Your task to perform on an android device: Do I have any events this weekend? Image 0: 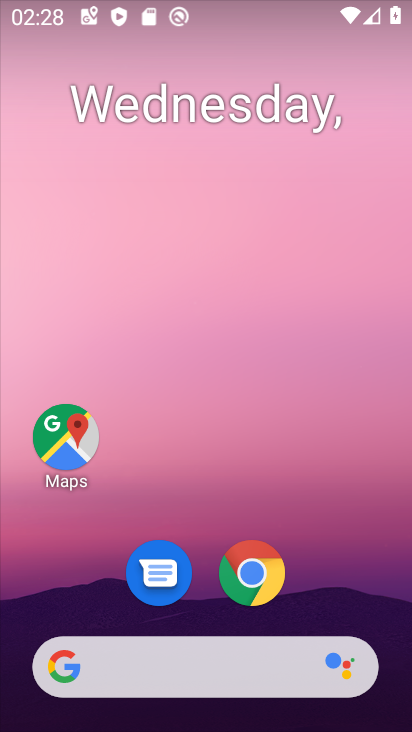
Step 0: drag from (348, 586) to (240, 12)
Your task to perform on an android device: Do I have any events this weekend? Image 1: 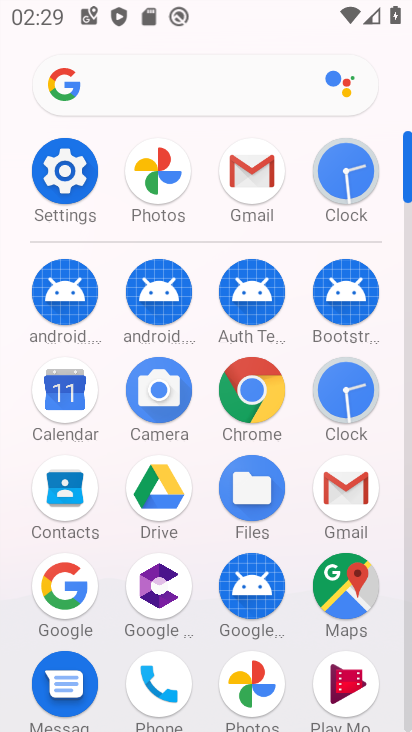
Step 1: click (67, 392)
Your task to perform on an android device: Do I have any events this weekend? Image 2: 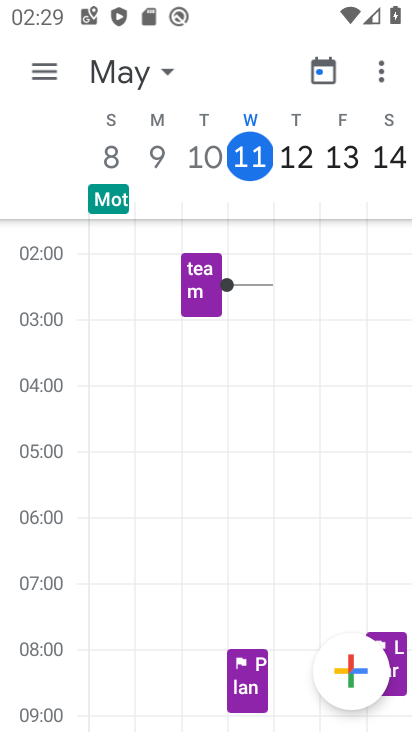
Step 2: click (167, 71)
Your task to perform on an android device: Do I have any events this weekend? Image 3: 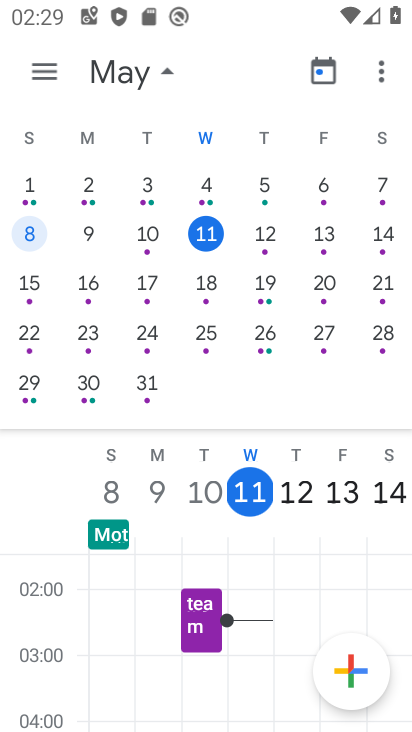
Step 3: click (324, 71)
Your task to perform on an android device: Do I have any events this weekend? Image 4: 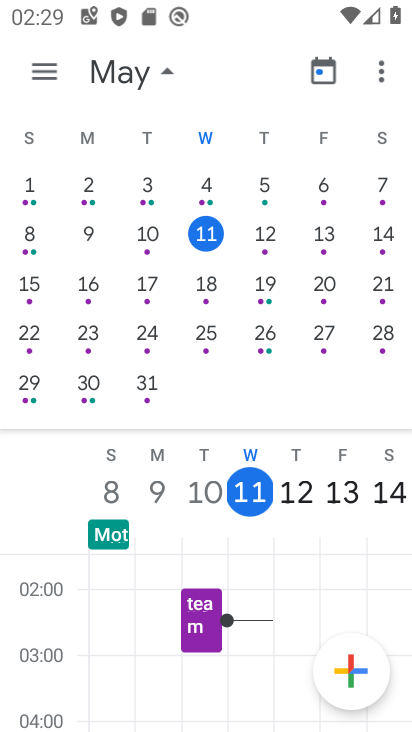
Step 4: click (392, 232)
Your task to perform on an android device: Do I have any events this weekend? Image 5: 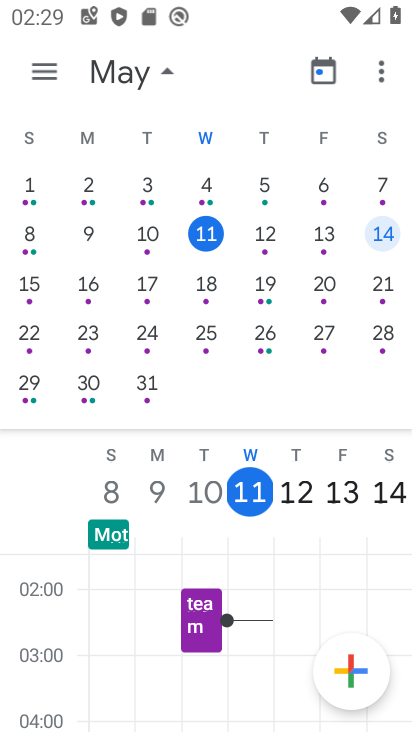
Step 5: click (34, 70)
Your task to perform on an android device: Do I have any events this weekend? Image 6: 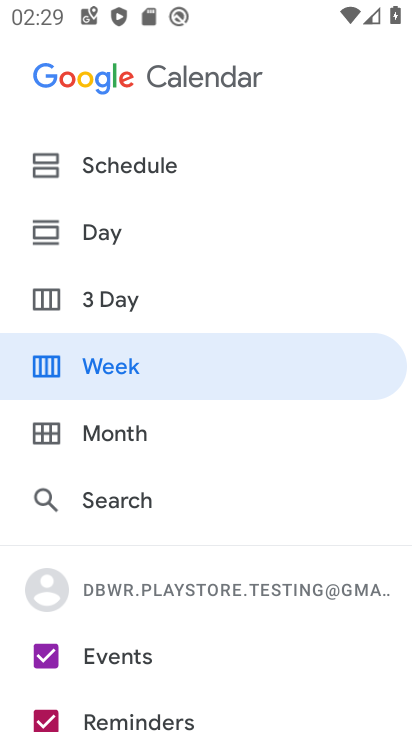
Step 6: click (83, 157)
Your task to perform on an android device: Do I have any events this weekend? Image 7: 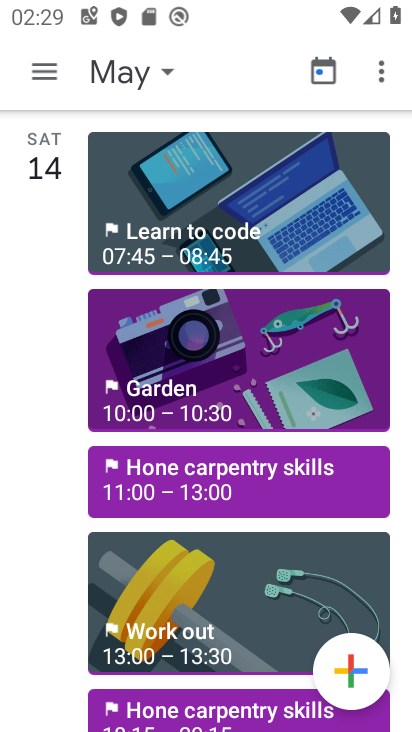
Step 7: task complete